Your task to perform on an android device: install app "Adobe Acrobat Reader" Image 0: 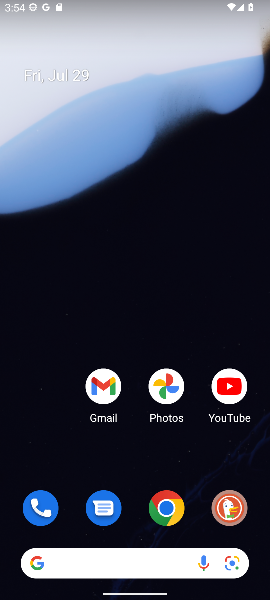
Step 0: drag from (219, 462) to (90, 37)
Your task to perform on an android device: install app "Adobe Acrobat Reader" Image 1: 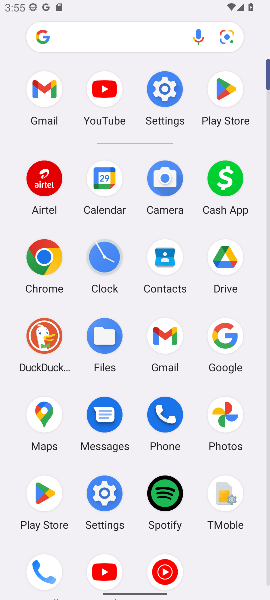
Step 1: click (221, 90)
Your task to perform on an android device: install app "Adobe Acrobat Reader" Image 2: 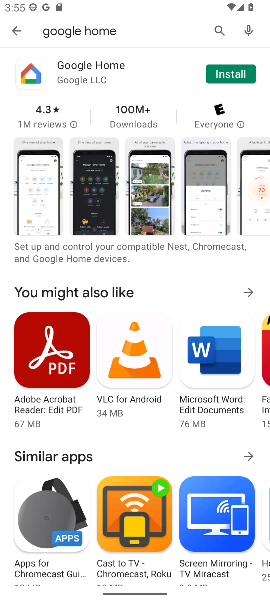
Step 2: press back button
Your task to perform on an android device: install app "Adobe Acrobat Reader" Image 3: 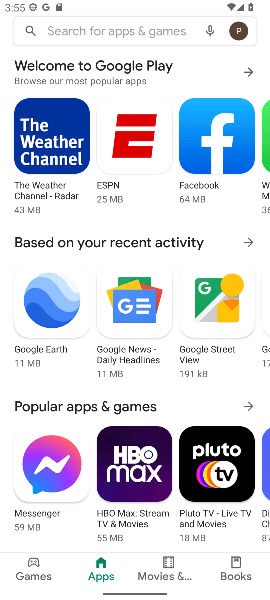
Step 3: click (90, 35)
Your task to perform on an android device: install app "Adobe Acrobat Reader" Image 4: 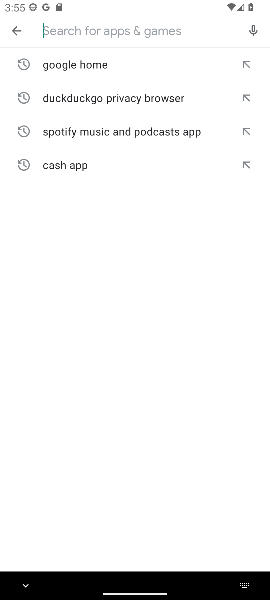
Step 4: type "Adobe Acrobat Reader"
Your task to perform on an android device: install app "Adobe Acrobat Reader" Image 5: 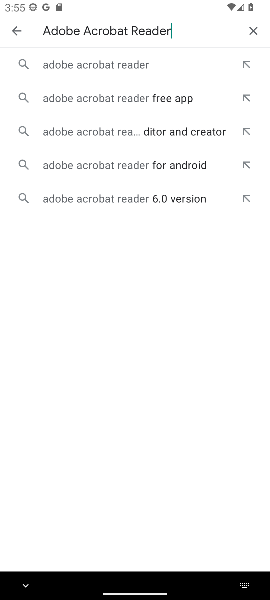
Step 5: click (87, 64)
Your task to perform on an android device: install app "Adobe Acrobat Reader" Image 6: 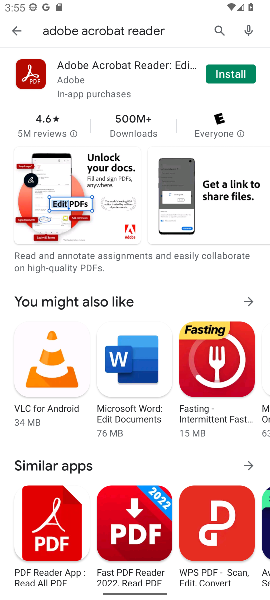
Step 6: click (229, 71)
Your task to perform on an android device: install app "Adobe Acrobat Reader" Image 7: 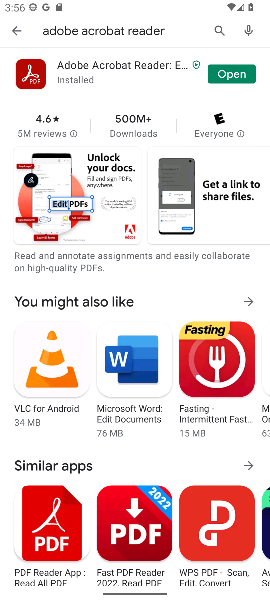
Step 7: task complete